Your task to perform on an android device: Open Yahoo.com Image 0: 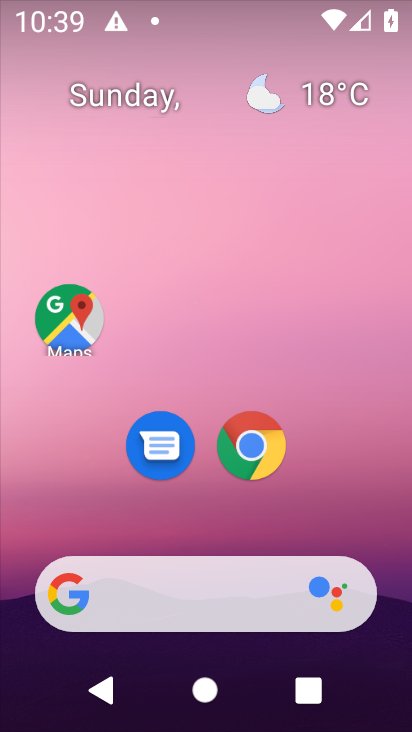
Step 0: click (266, 457)
Your task to perform on an android device: Open Yahoo.com Image 1: 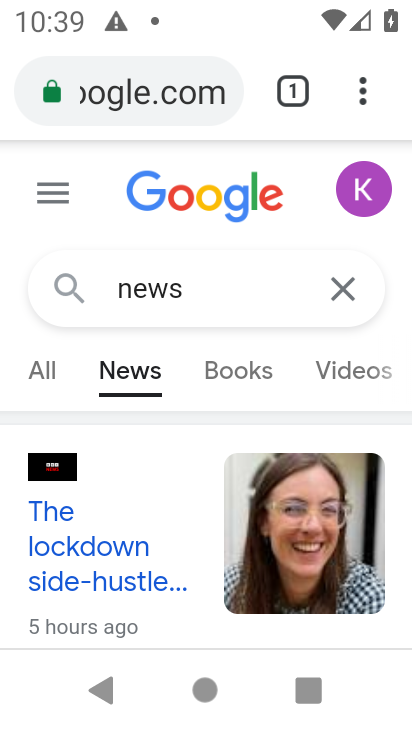
Step 1: click (179, 101)
Your task to perform on an android device: Open Yahoo.com Image 2: 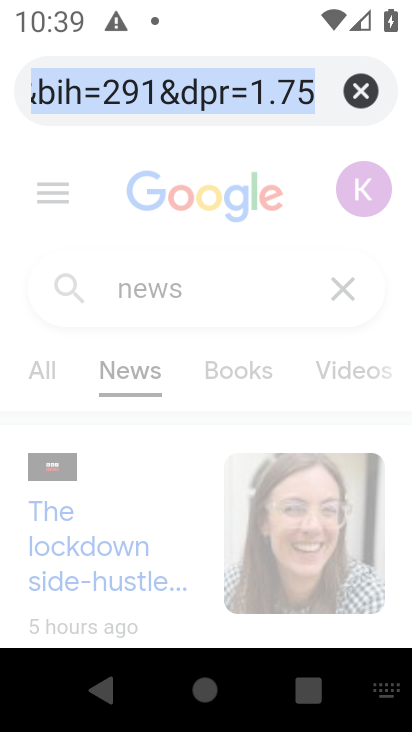
Step 2: type "yahoo.com"
Your task to perform on an android device: Open Yahoo.com Image 3: 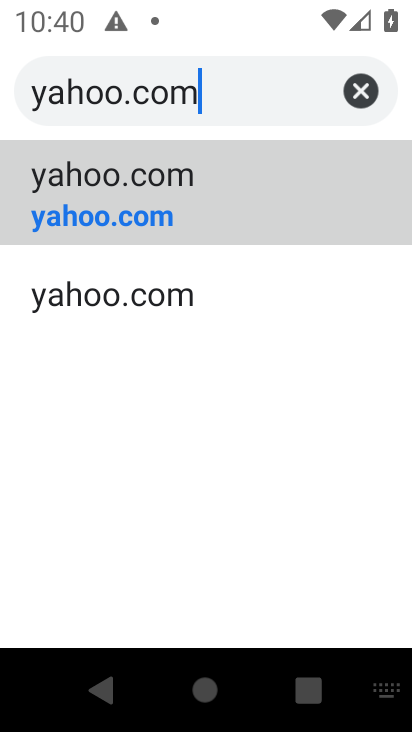
Step 3: click (264, 175)
Your task to perform on an android device: Open Yahoo.com Image 4: 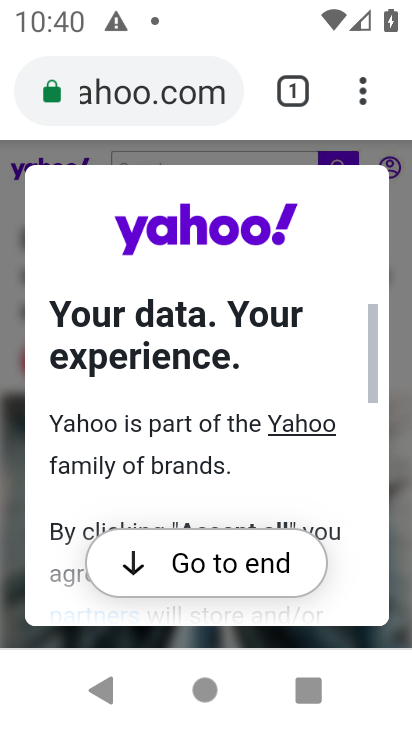
Step 4: task complete